Your task to perform on an android device: toggle notification dots Image 0: 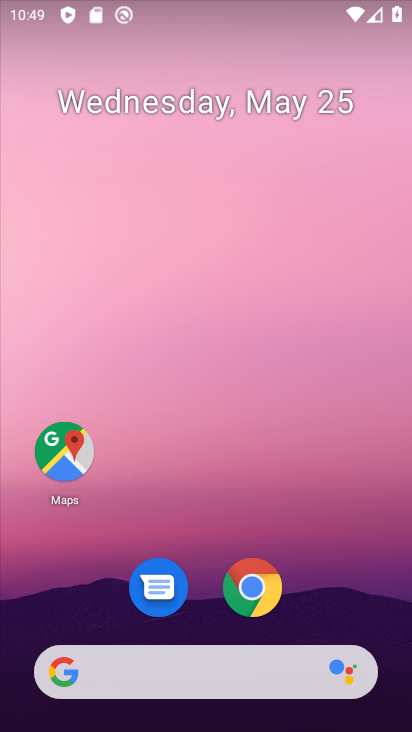
Step 0: drag from (286, 577) to (229, 47)
Your task to perform on an android device: toggle notification dots Image 1: 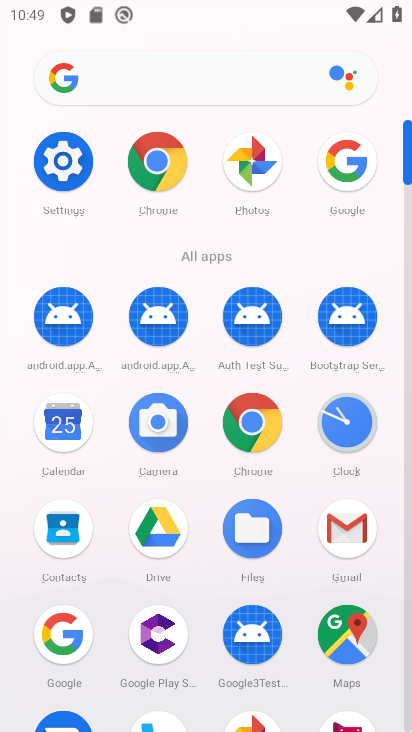
Step 1: click (65, 154)
Your task to perform on an android device: toggle notification dots Image 2: 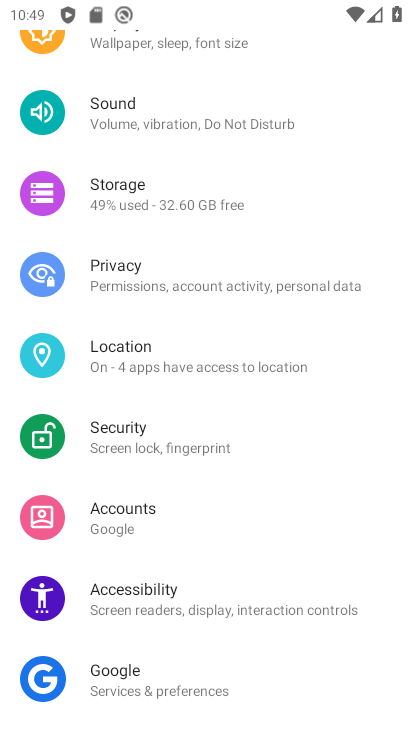
Step 2: drag from (272, 514) to (275, 89)
Your task to perform on an android device: toggle notification dots Image 3: 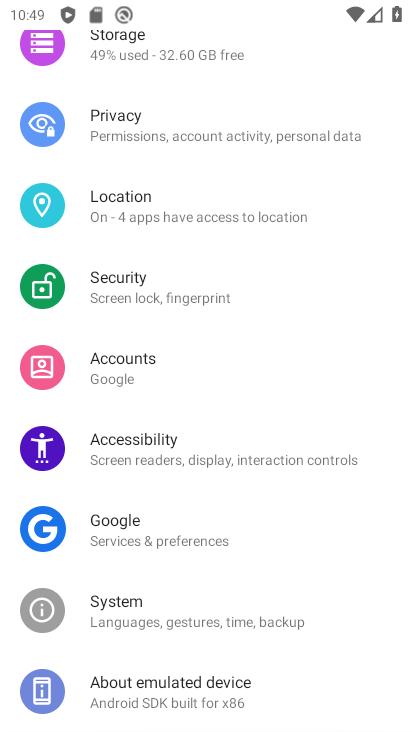
Step 3: drag from (260, 125) to (234, 622)
Your task to perform on an android device: toggle notification dots Image 4: 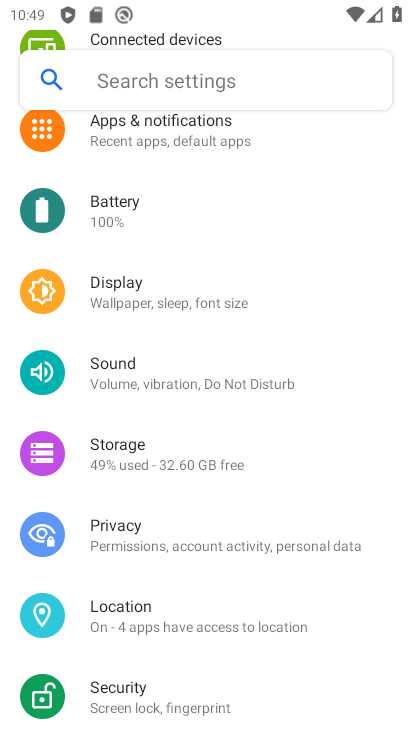
Step 4: click (206, 131)
Your task to perform on an android device: toggle notification dots Image 5: 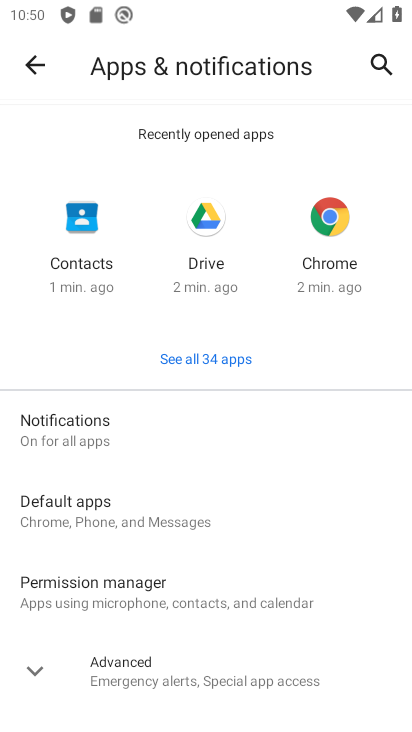
Step 5: click (83, 667)
Your task to perform on an android device: toggle notification dots Image 6: 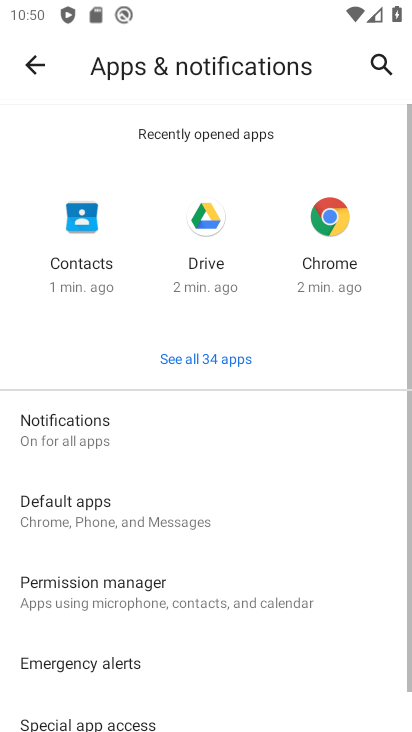
Step 6: drag from (252, 570) to (244, 147)
Your task to perform on an android device: toggle notification dots Image 7: 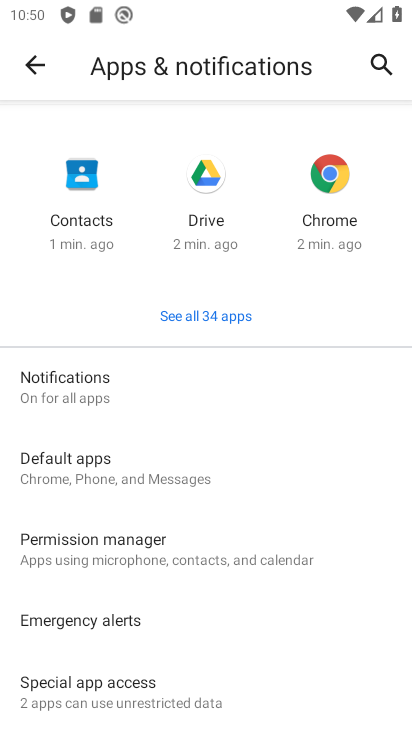
Step 7: click (103, 382)
Your task to perform on an android device: toggle notification dots Image 8: 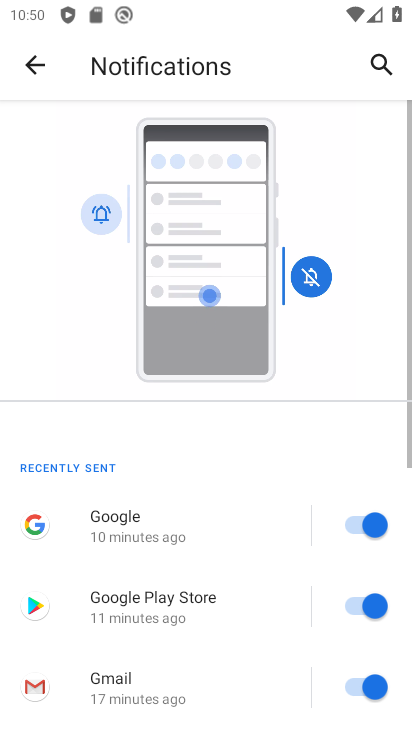
Step 8: drag from (280, 632) to (242, 103)
Your task to perform on an android device: toggle notification dots Image 9: 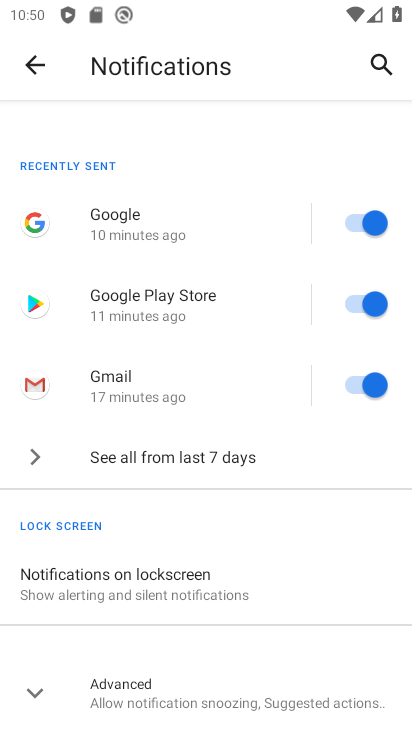
Step 9: click (212, 664)
Your task to perform on an android device: toggle notification dots Image 10: 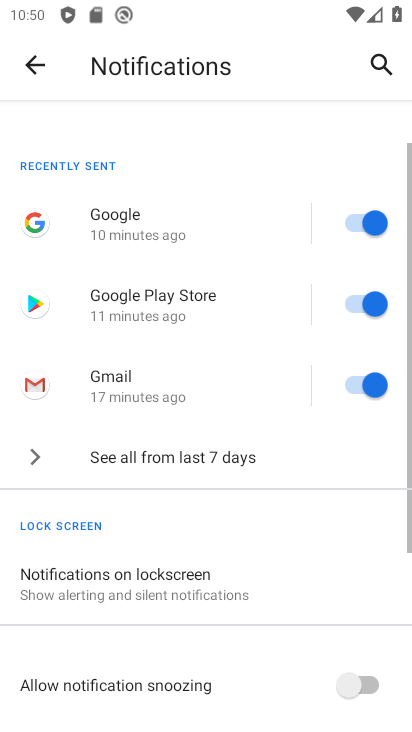
Step 10: click (26, 687)
Your task to perform on an android device: toggle notification dots Image 11: 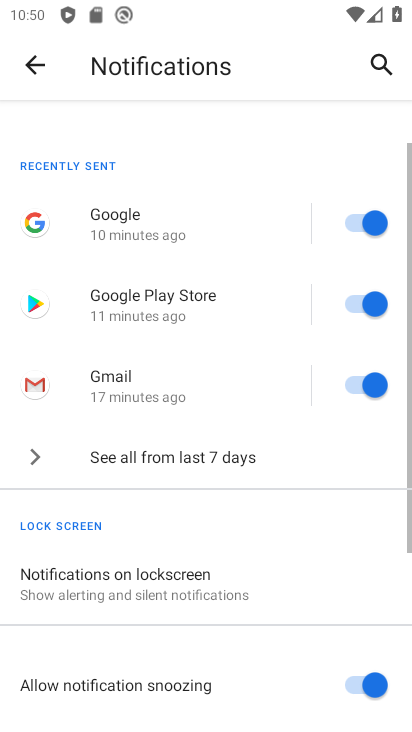
Step 11: drag from (203, 646) to (214, 171)
Your task to perform on an android device: toggle notification dots Image 12: 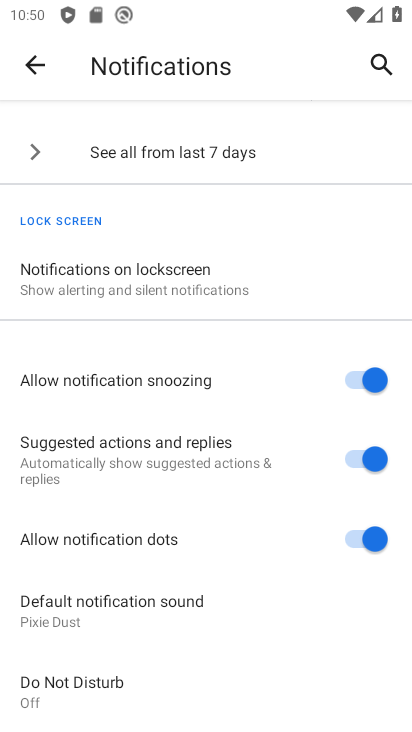
Step 12: click (387, 539)
Your task to perform on an android device: toggle notification dots Image 13: 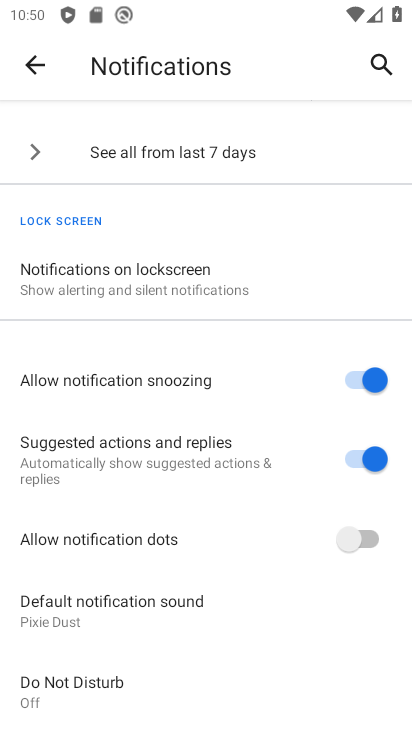
Step 13: task complete